Your task to perform on an android device: star an email in the gmail app Image 0: 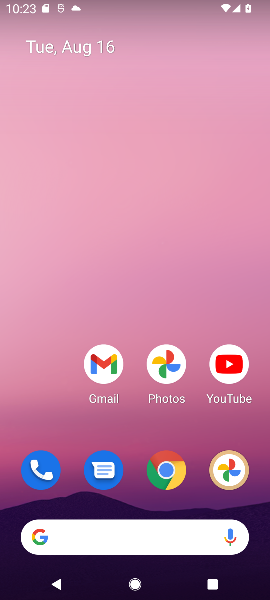
Step 0: click (107, 367)
Your task to perform on an android device: star an email in the gmail app Image 1: 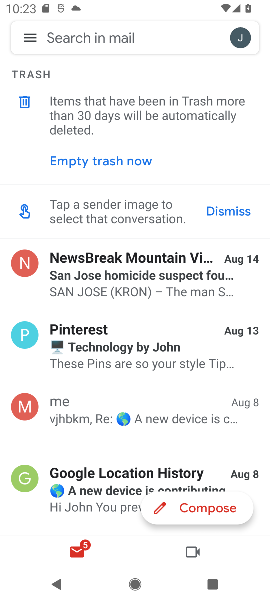
Step 1: click (147, 413)
Your task to perform on an android device: star an email in the gmail app Image 2: 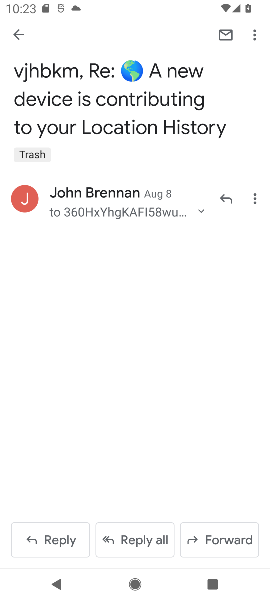
Step 2: click (254, 33)
Your task to perform on an android device: star an email in the gmail app Image 3: 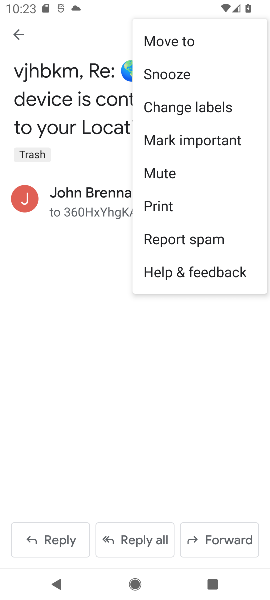
Step 3: click (82, 339)
Your task to perform on an android device: star an email in the gmail app Image 4: 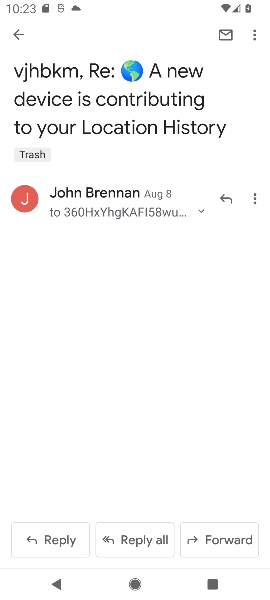
Step 4: click (253, 195)
Your task to perform on an android device: star an email in the gmail app Image 5: 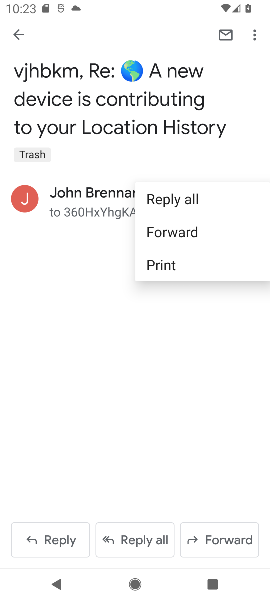
Step 5: click (171, 322)
Your task to perform on an android device: star an email in the gmail app Image 6: 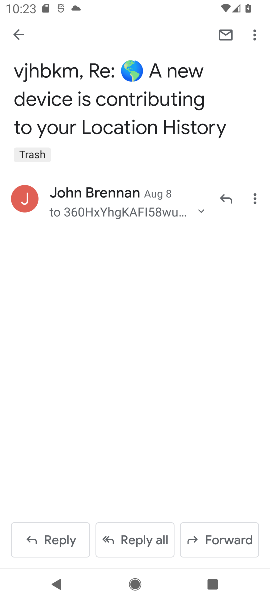
Step 6: click (23, 199)
Your task to perform on an android device: star an email in the gmail app Image 7: 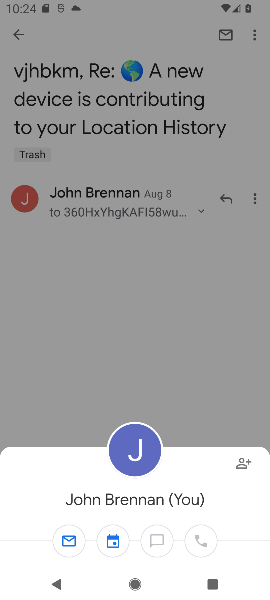
Step 7: click (84, 272)
Your task to perform on an android device: star an email in the gmail app Image 8: 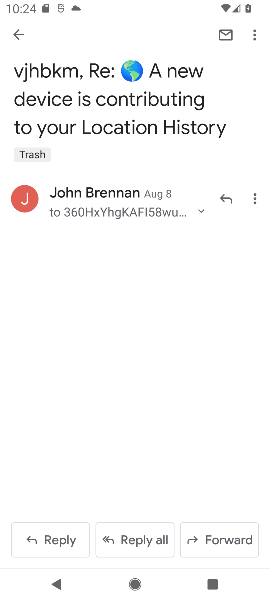
Step 8: click (20, 28)
Your task to perform on an android device: star an email in the gmail app Image 9: 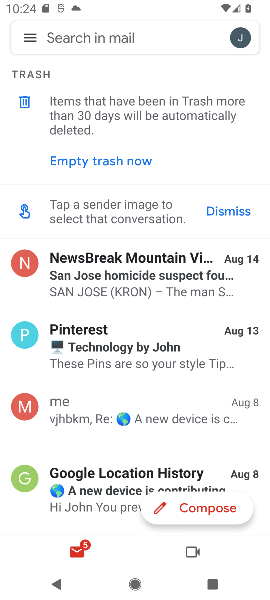
Step 9: click (31, 35)
Your task to perform on an android device: star an email in the gmail app Image 10: 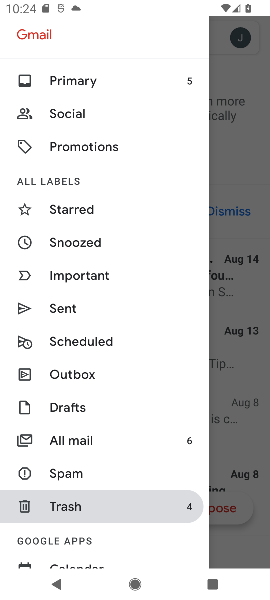
Step 10: click (79, 428)
Your task to perform on an android device: star an email in the gmail app Image 11: 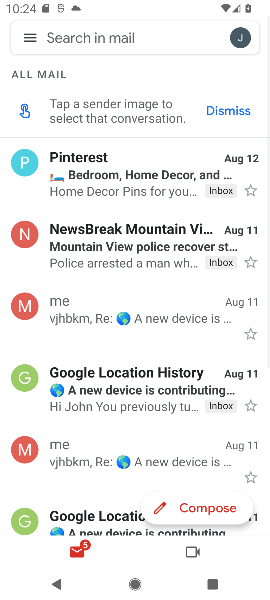
Step 11: click (250, 187)
Your task to perform on an android device: star an email in the gmail app Image 12: 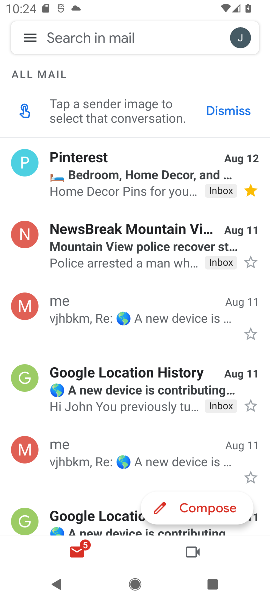
Step 12: task complete